Your task to perform on an android device: check battery use Image 0: 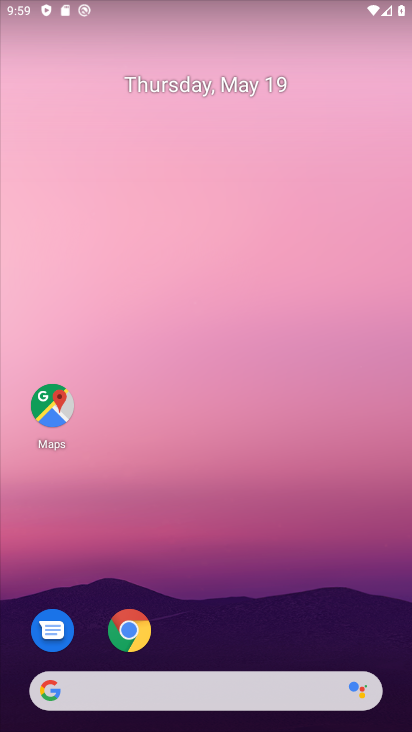
Step 0: drag from (375, 531) to (339, 159)
Your task to perform on an android device: check battery use Image 1: 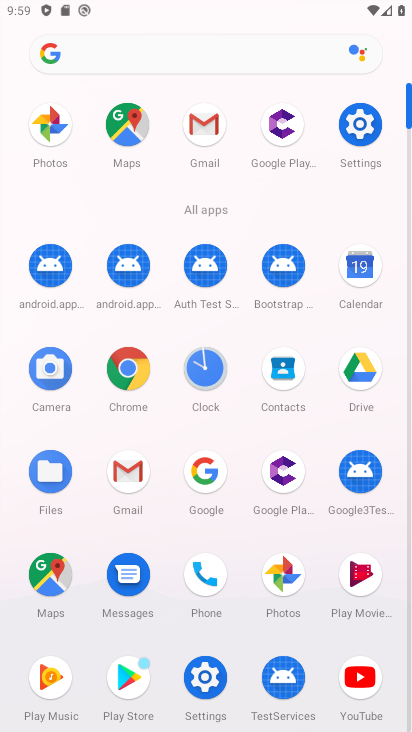
Step 1: click (206, 665)
Your task to perform on an android device: check battery use Image 2: 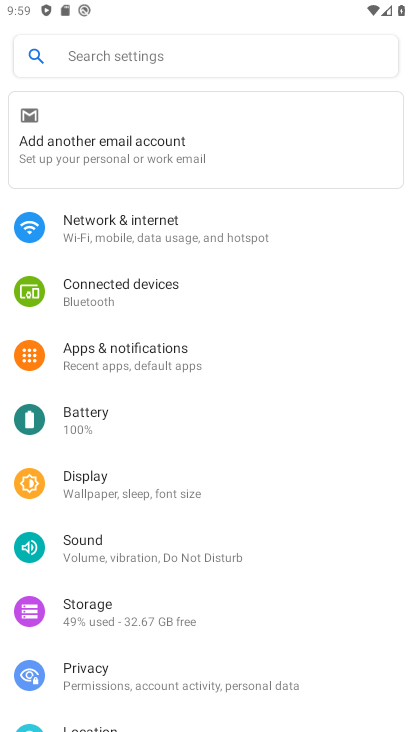
Step 2: click (124, 422)
Your task to perform on an android device: check battery use Image 3: 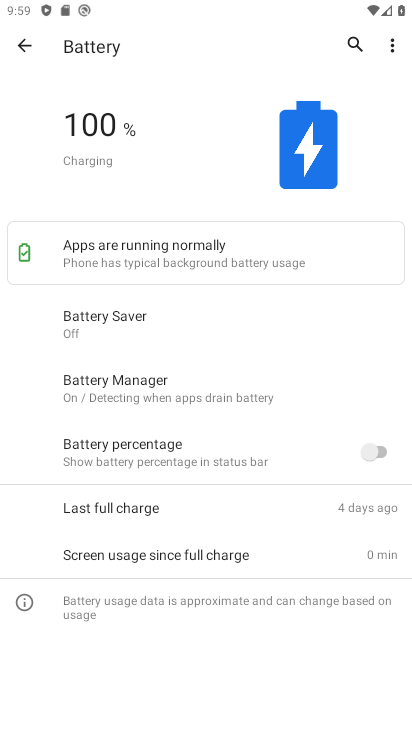
Step 3: task complete